Your task to perform on an android device: change the clock display to show seconds Image 0: 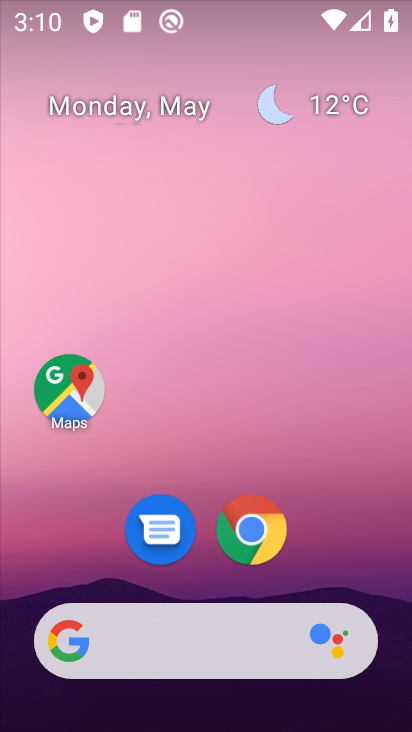
Step 0: drag from (323, 526) to (249, 89)
Your task to perform on an android device: change the clock display to show seconds Image 1: 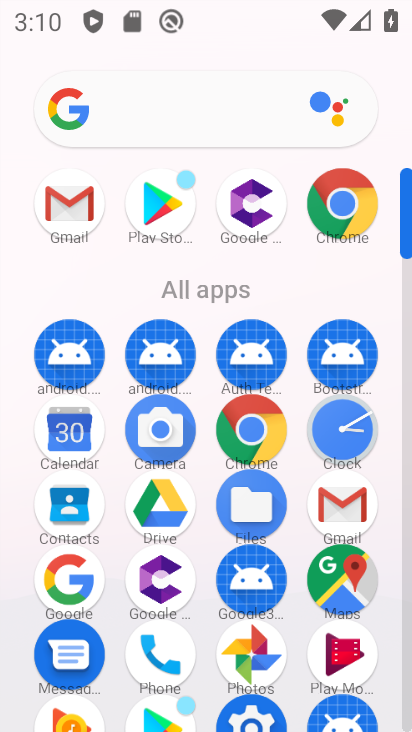
Step 1: drag from (290, 564) to (347, 236)
Your task to perform on an android device: change the clock display to show seconds Image 2: 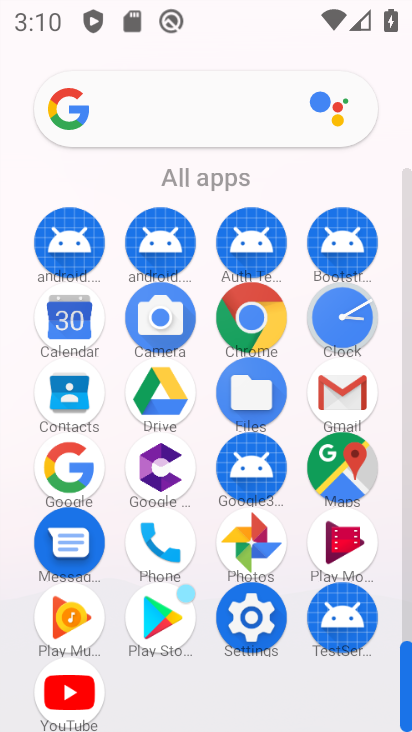
Step 2: click (260, 624)
Your task to perform on an android device: change the clock display to show seconds Image 3: 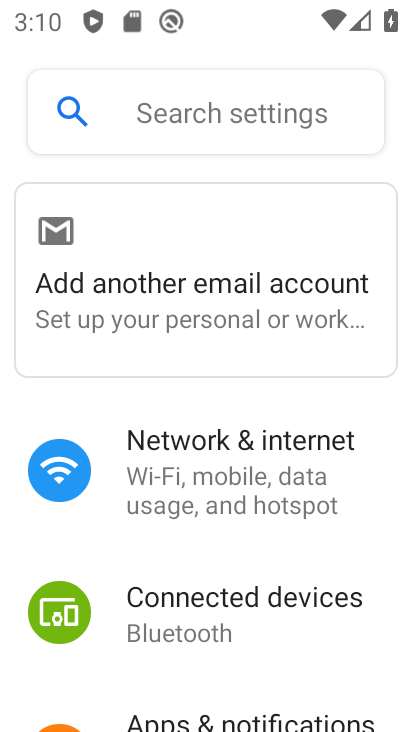
Step 3: drag from (259, 583) to (259, 179)
Your task to perform on an android device: change the clock display to show seconds Image 4: 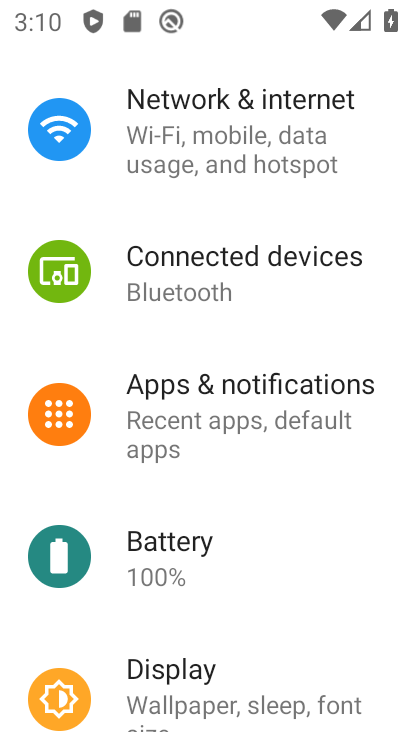
Step 4: drag from (235, 561) to (283, 156)
Your task to perform on an android device: change the clock display to show seconds Image 5: 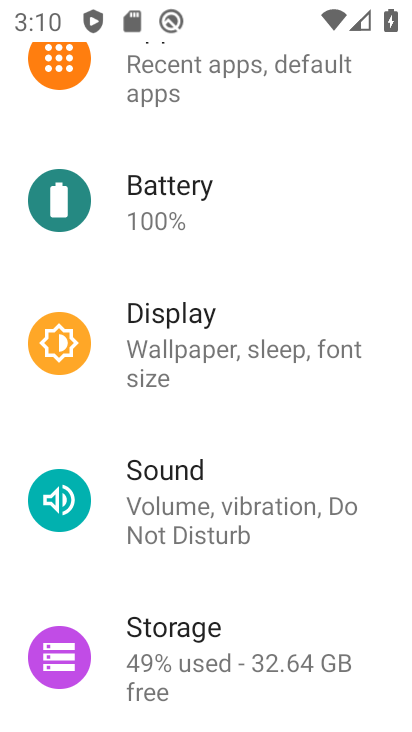
Step 5: press home button
Your task to perform on an android device: change the clock display to show seconds Image 6: 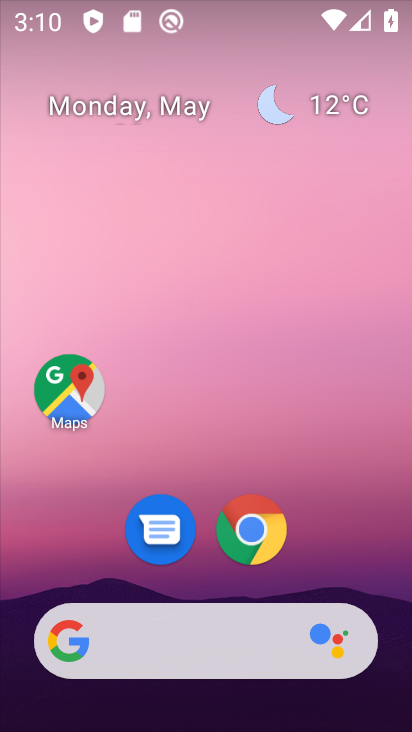
Step 6: drag from (356, 433) to (312, 110)
Your task to perform on an android device: change the clock display to show seconds Image 7: 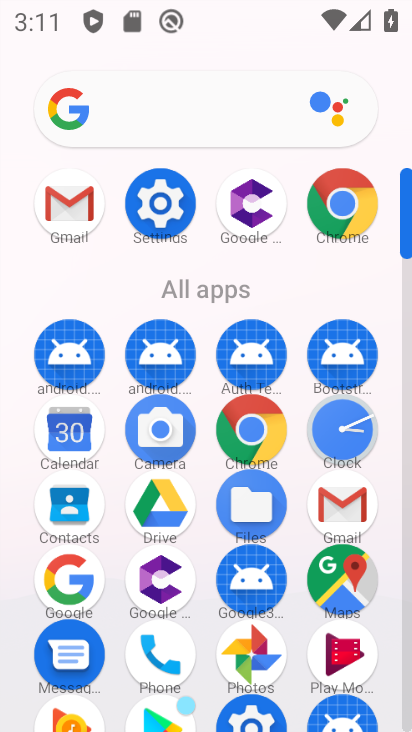
Step 7: click (327, 432)
Your task to perform on an android device: change the clock display to show seconds Image 8: 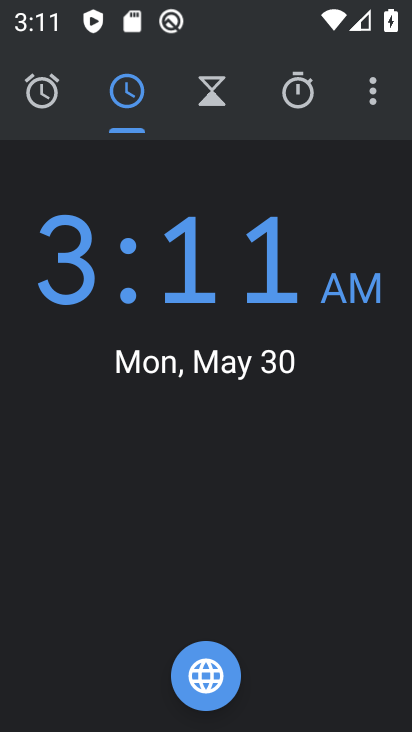
Step 8: click (385, 87)
Your task to perform on an android device: change the clock display to show seconds Image 9: 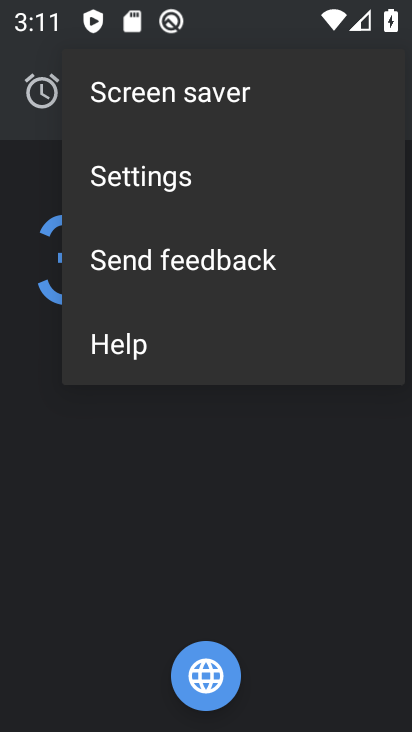
Step 9: click (170, 190)
Your task to perform on an android device: change the clock display to show seconds Image 10: 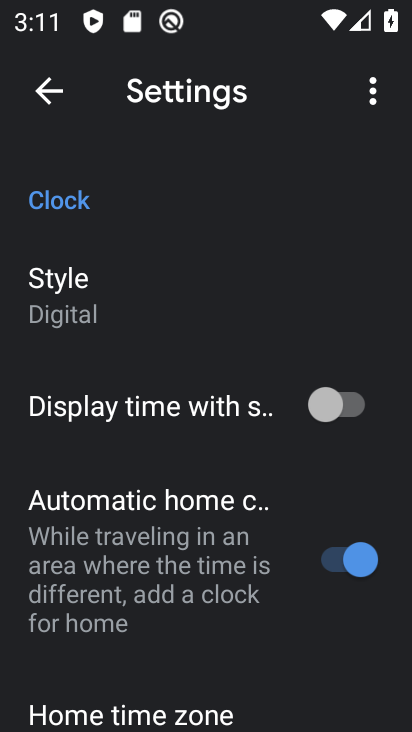
Step 10: click (314, 403)
Your task to perform on an android device: change the clock display to show seconds Image 11: 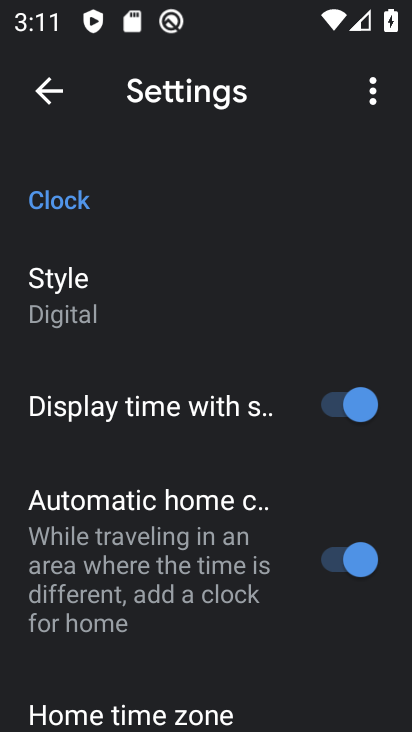
Step 11: task complete